Your task to perform on an android device: toggle priority inbox in the gmail app Image 0: 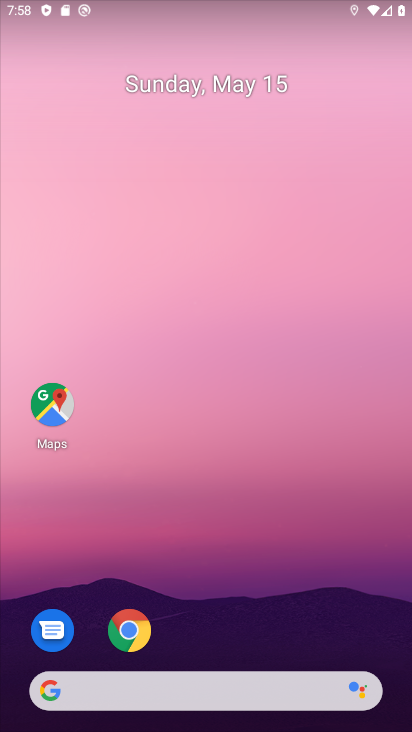
Step 0: drag from (232, 653) to (258, 22)
Your task to perform on an android device: toggle priority inbox in the gmail app Image 1: 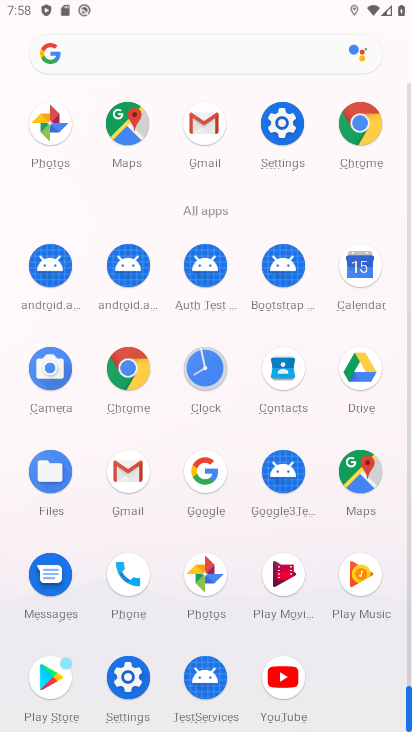
Step 1: click (124, 470)
Your task to perform on an android device: toggle priority inbox in the gmail app Image 2: 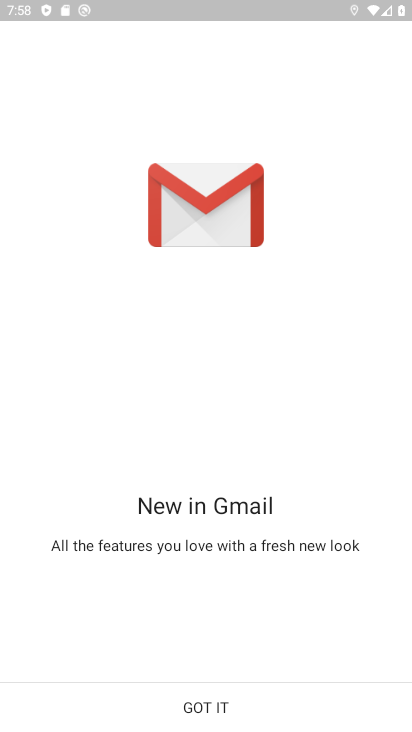
Step 2: click (246, 713)
Your task to perform on an android device: toggle priority inbox in the gmail app Image 3: 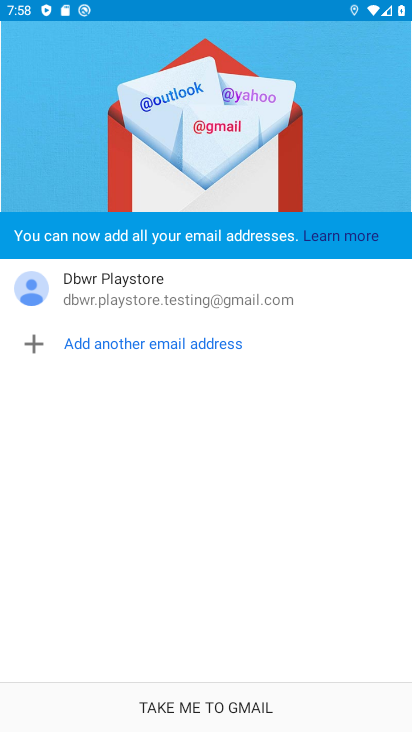
Step 3: click (225, 709)
Your task to perform on an android device: toggle priority inbox in the gmail app Image 4: 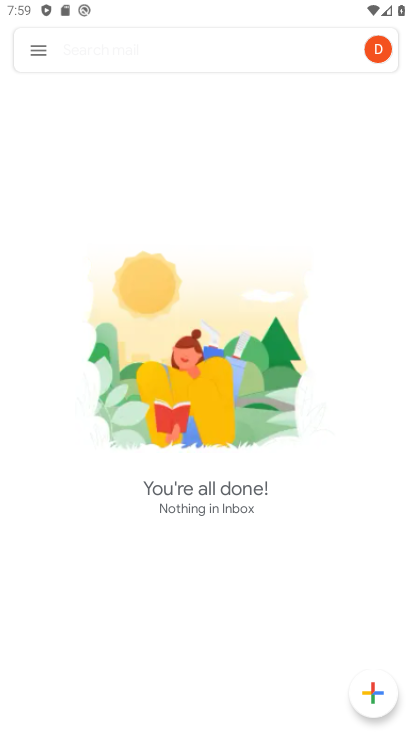
Step 4: click (46, 46)
Your task to perform on an android device: toggle priority inbox in the gmail app Image 5: 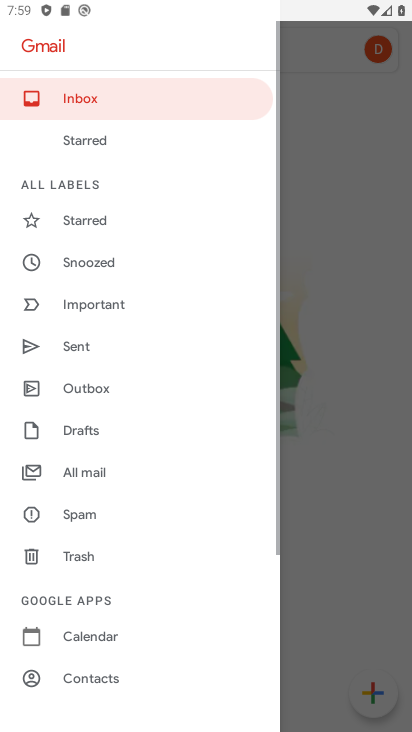
Step 5: drag from (102, 668) to (158, 400)
Your task to perform on an android device: toggle priority inbox in the gmail app Image 6: 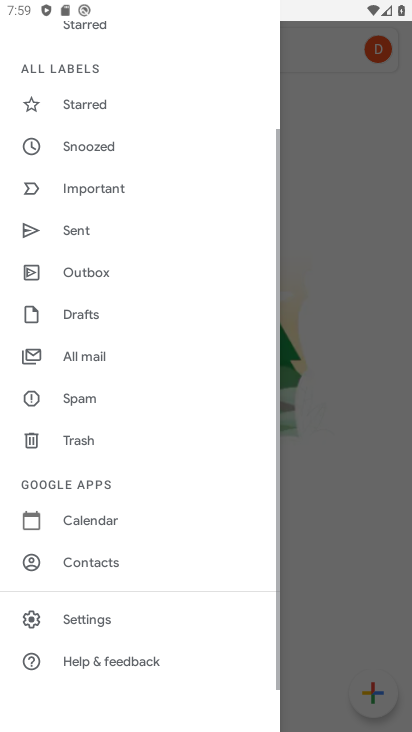
Step 6: click (93, 628)
Your task to perform on an android device: toggle priority inbox in the gmail app Image 7: 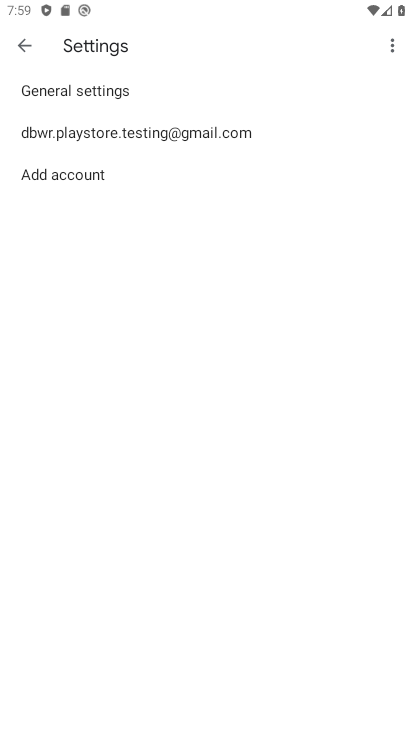
Step 7: click (118, 137)
Your task to perform on an android device: toggle priority inbox in the gmail app Image 8: 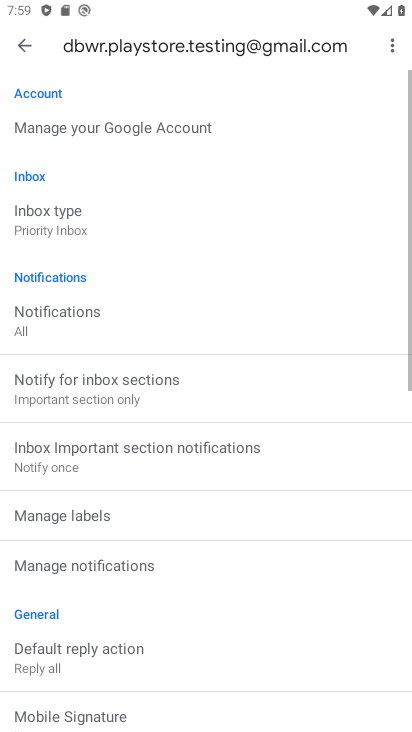
Step 8: click (66, 215)
Your task to perform on an android device: toggle priority inbox in the gmail app Image 9: 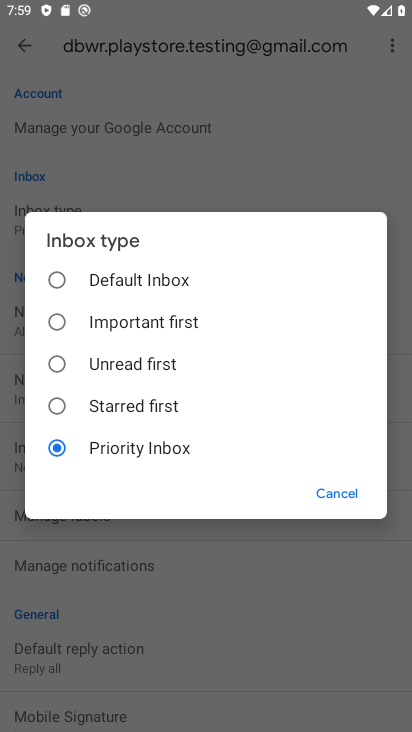
Step 9: click (101, 284)
Your task to perform on an android device: toggle priority inbox in the gmail app Image 10: 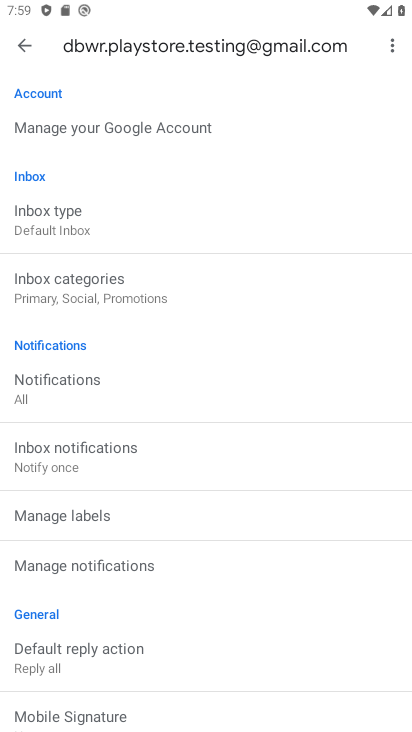
Step 10: task complete